Your task to perform on an android device: Search for pizza restaurants on Maps Image 0: 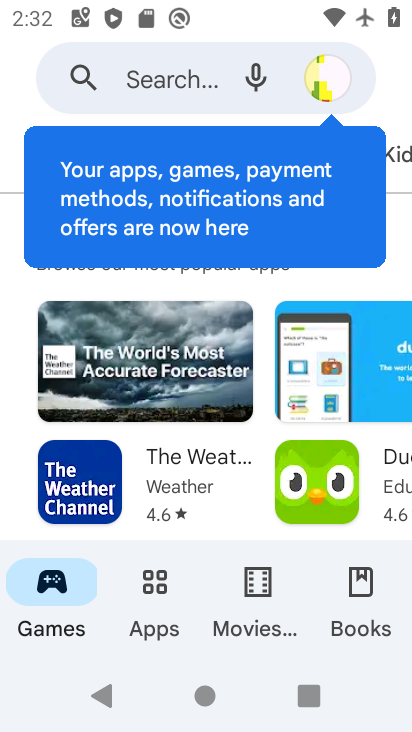
Step 0: press home button
Your task to perform on an android device: Search for pizza restaurants on Maps Image 1: 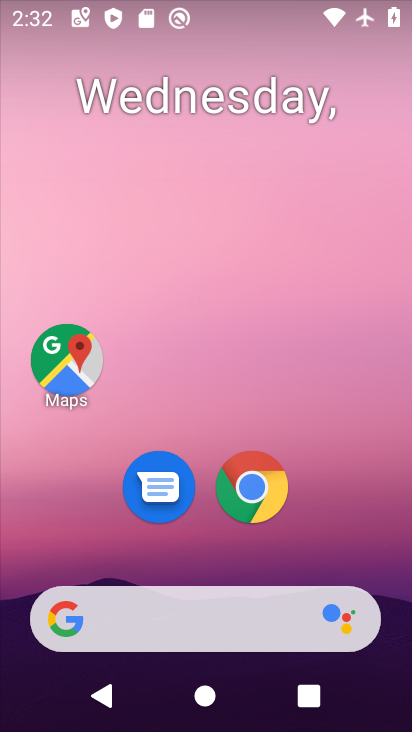
Step 1: drag from (326, 491) to (335, 83)
Your task to perform on an android device: Search for pizza restaurants on Maps Image 2: 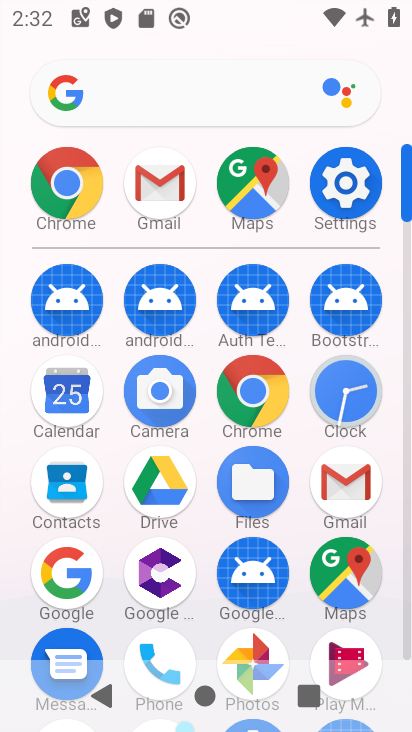
Step 2: click (273, 188)
Your task to perform on an android device: Search for pizza restaurants on Maps Image 3: 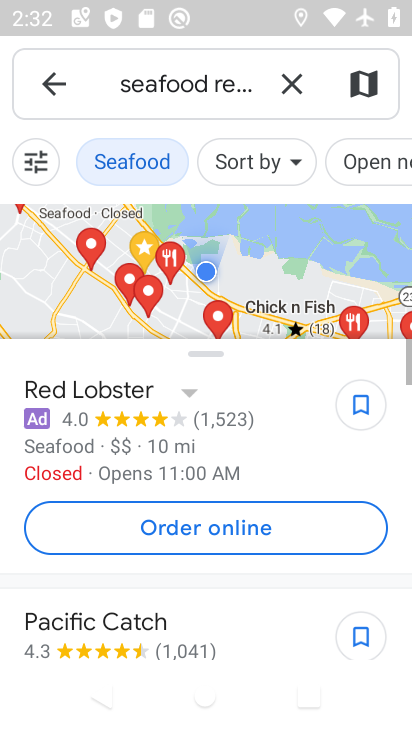
Step 3: click (288, 101)
Your task to perform on an android device: Search for pizza restaurants on Maps Image 4: 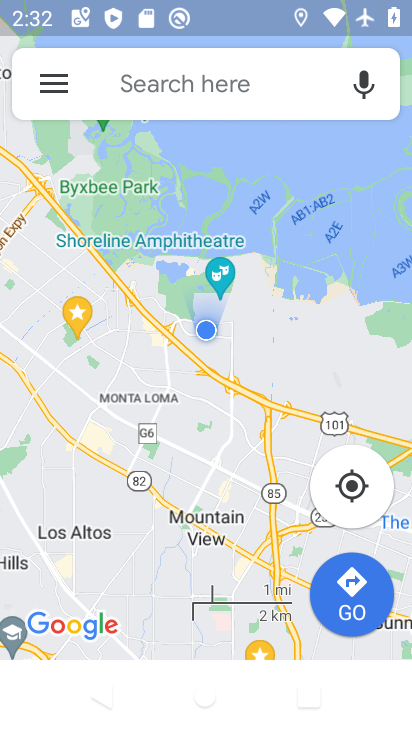
Step 4: click (204, 77)
Your task to perform on an android device: Search for pizza restaurants on Maps Image 5: 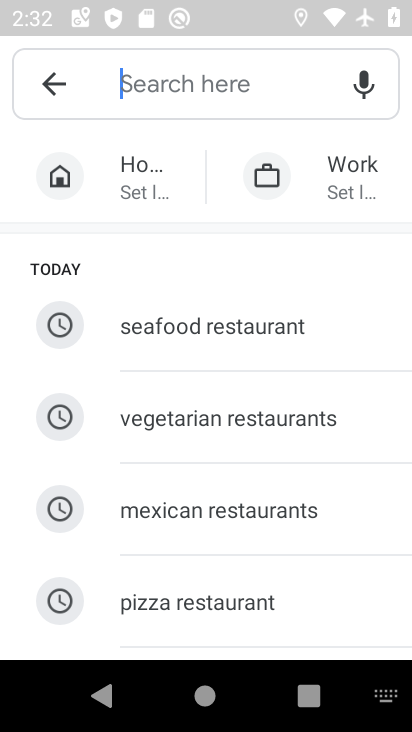
Step 5: click (272, 599)
Your task to perform on an android device: Search for pizza restaurants on Maps Image 6: 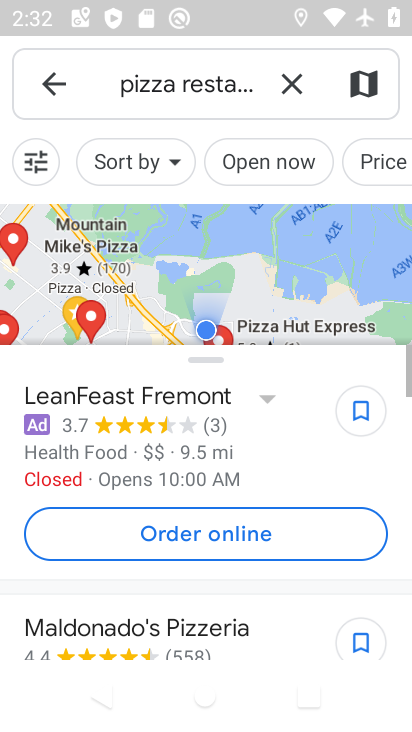
Step 6: task complete